Your task to perform on an android device: What's the weather? Image 0: 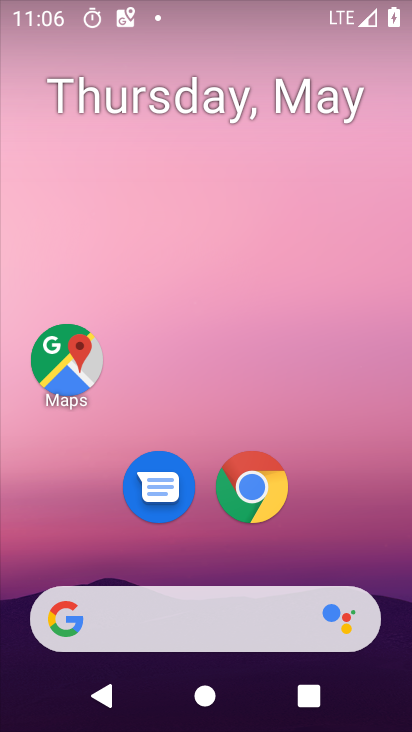
Step 0: drag from (237, 635) to (233, 8)
Your task to perform on an android device: What's the weather? Image 1: 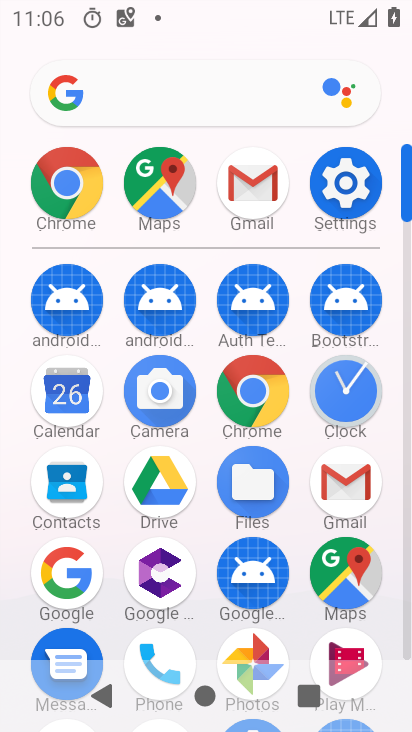
Step 1: click (70, 581)
Your task to perform on an android device: What's the weather? Image 2: 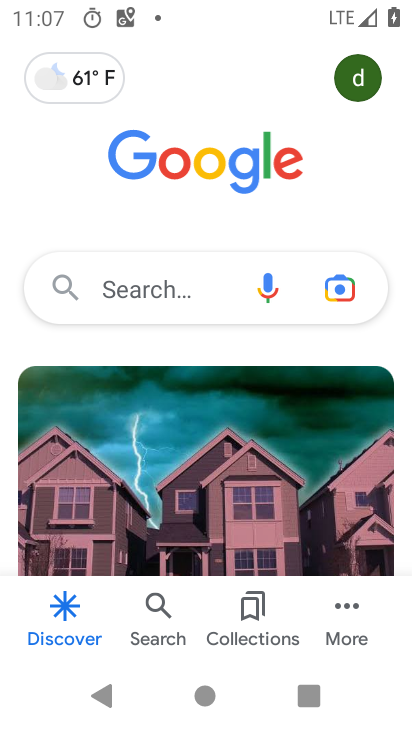
Step 2: click (166, 295)
Your task to perform on an android device: What's the weather? Image 3: 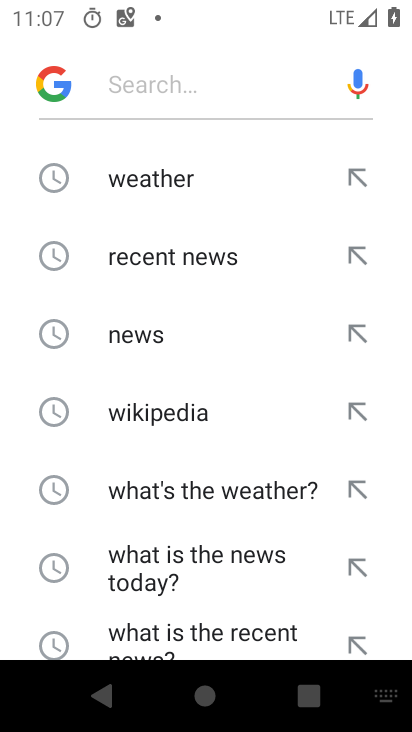
Step 3: click (173, 181)
Your task to perform on an android device: What's the weather? Image 4: 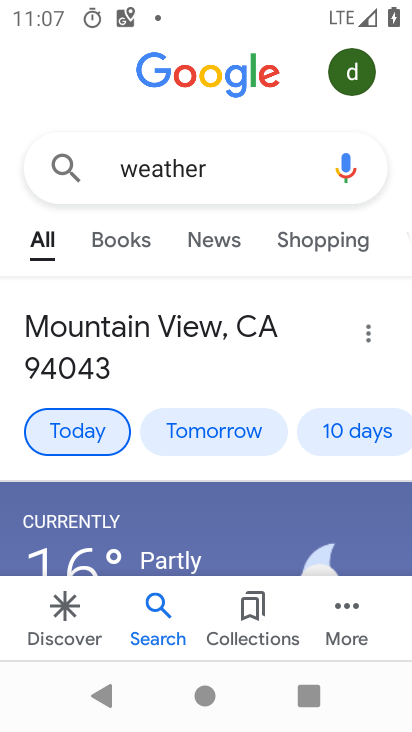
Step 4: task complete